Your task to perform on an android device: Open my contact list Image 0: 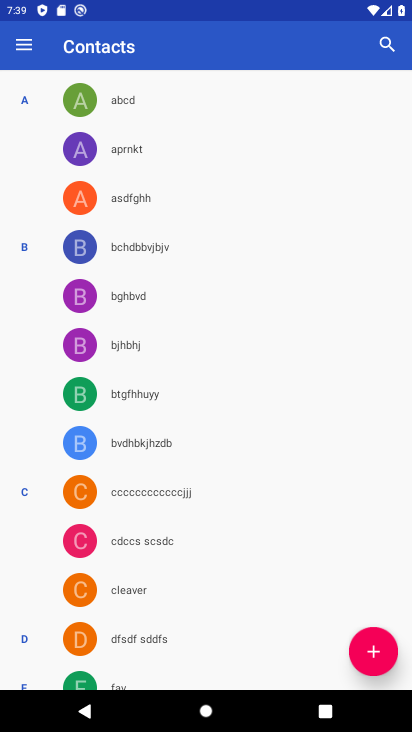
Step 0: task complete